Your task to perform on an android device: turn off location Image 0: 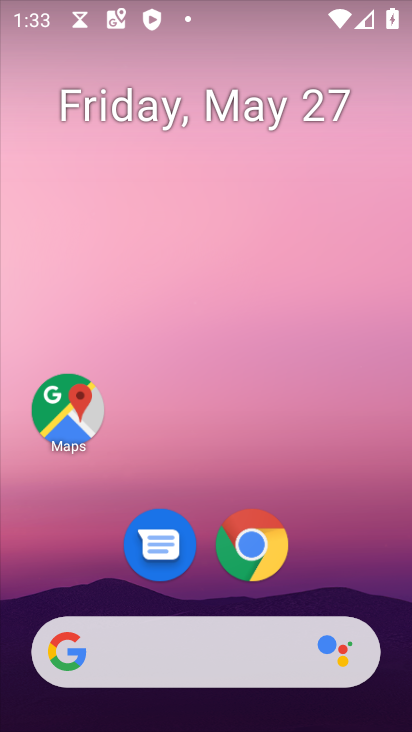
Step 0: drag from (313, 510) to (168, 51)
Your task to perform on an android device: turn off location Image 1: 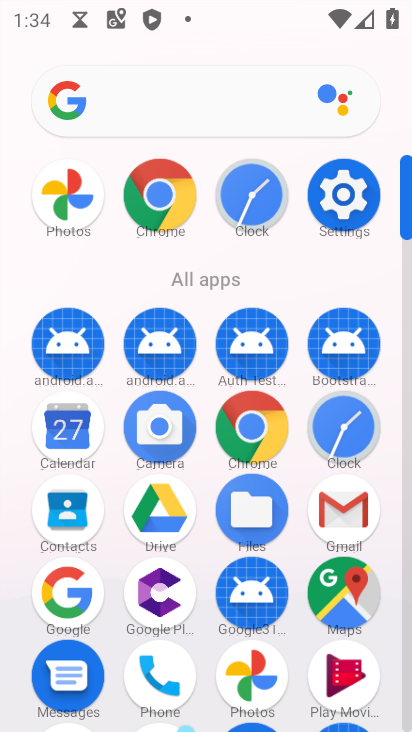
Step 1: click (335, 217)
Your task to perform on an android device: turn off location Image 2: 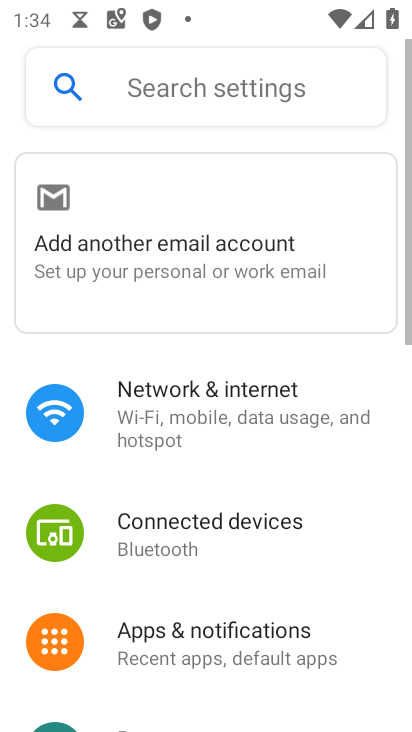
Step 2: drag from (286, 654) to (202, 180)
Your task to perform on an android device: turn off location Image 3: 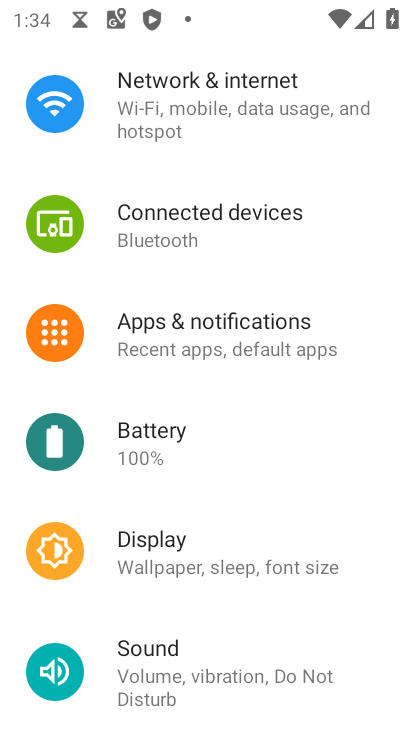
Step 3: drag from (246, 554) to (254, 154)
Your task to perform on an android device: turn off location Image 4: 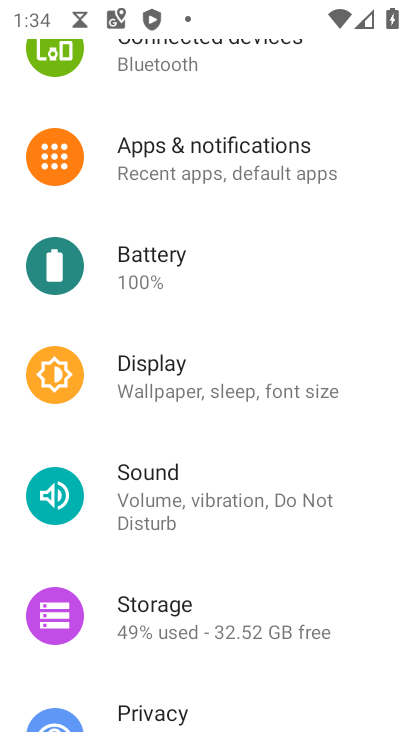
Step 4: drag from (197, 611) to (232, 219)
Your task to perform on an android device: turn off location Image 5: 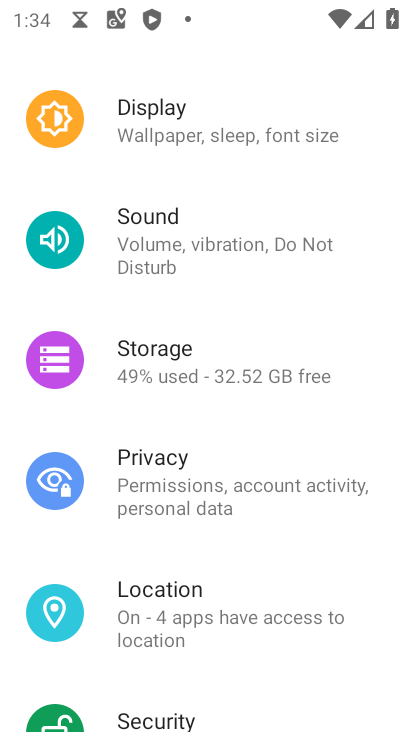
Step 5: click (236, 586)
Your task to perform on an android device: turn off location Image 6: 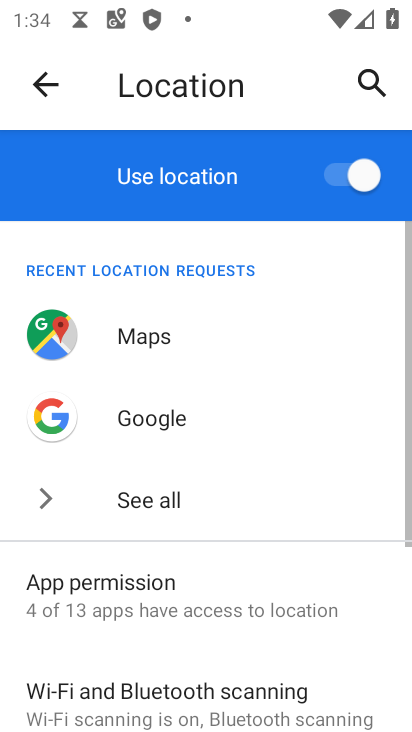
Step 6: drag from (227, 638) to (200, 196)
Your task to perform on an android device: turn off location Image 7: 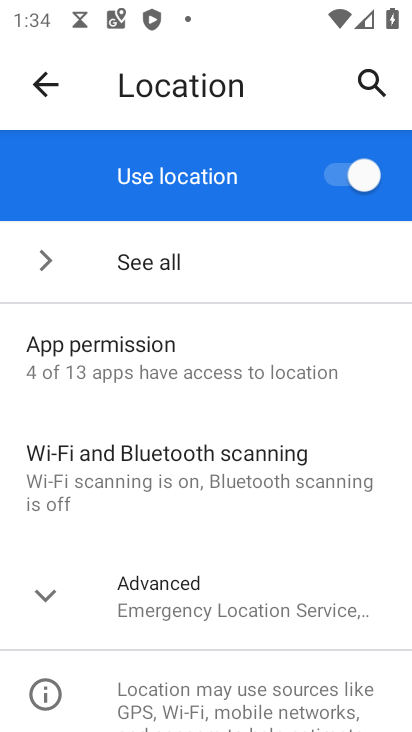
Step 7: click (365, 167)
Your task to perform on an android device: turn off location Image 8: 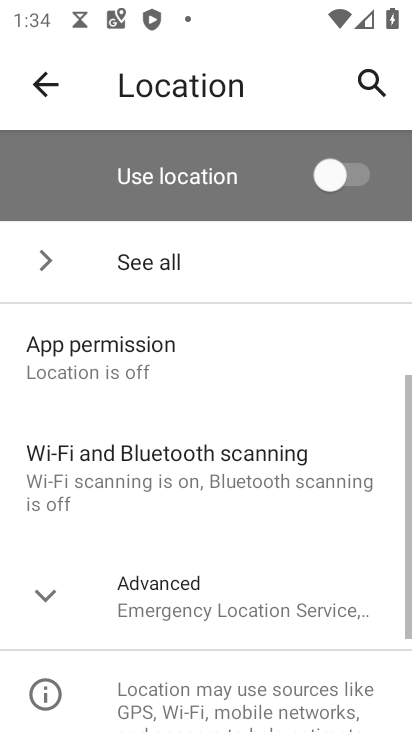
Step 8: task complete